Your task to perform on an android device: open app "WhatsApp Messenger" (install if not already installed) Image 0: 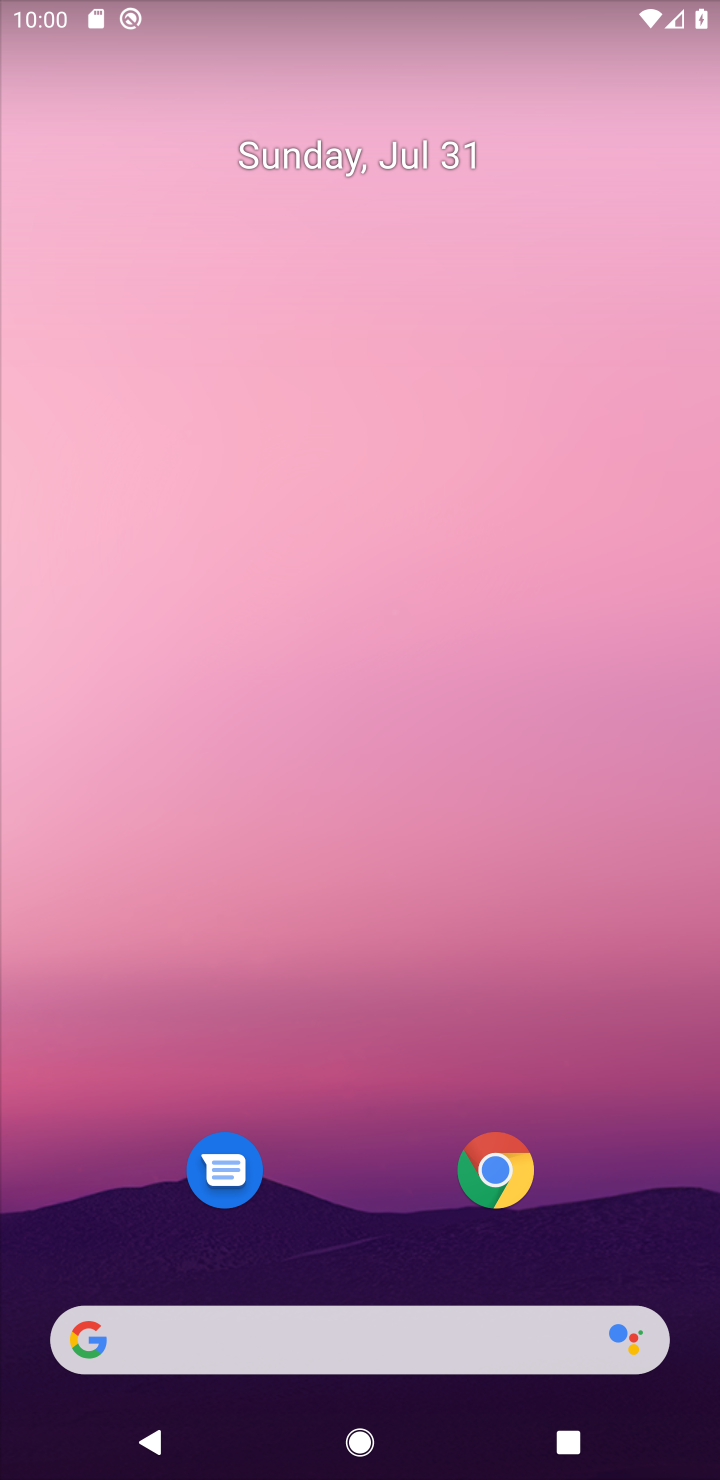
Step 0: drag from (656, 1244) to (273, 111)
Your task to perform on an android device: open app "WhatsApp Messenger" (install if not already installed) Image 1: 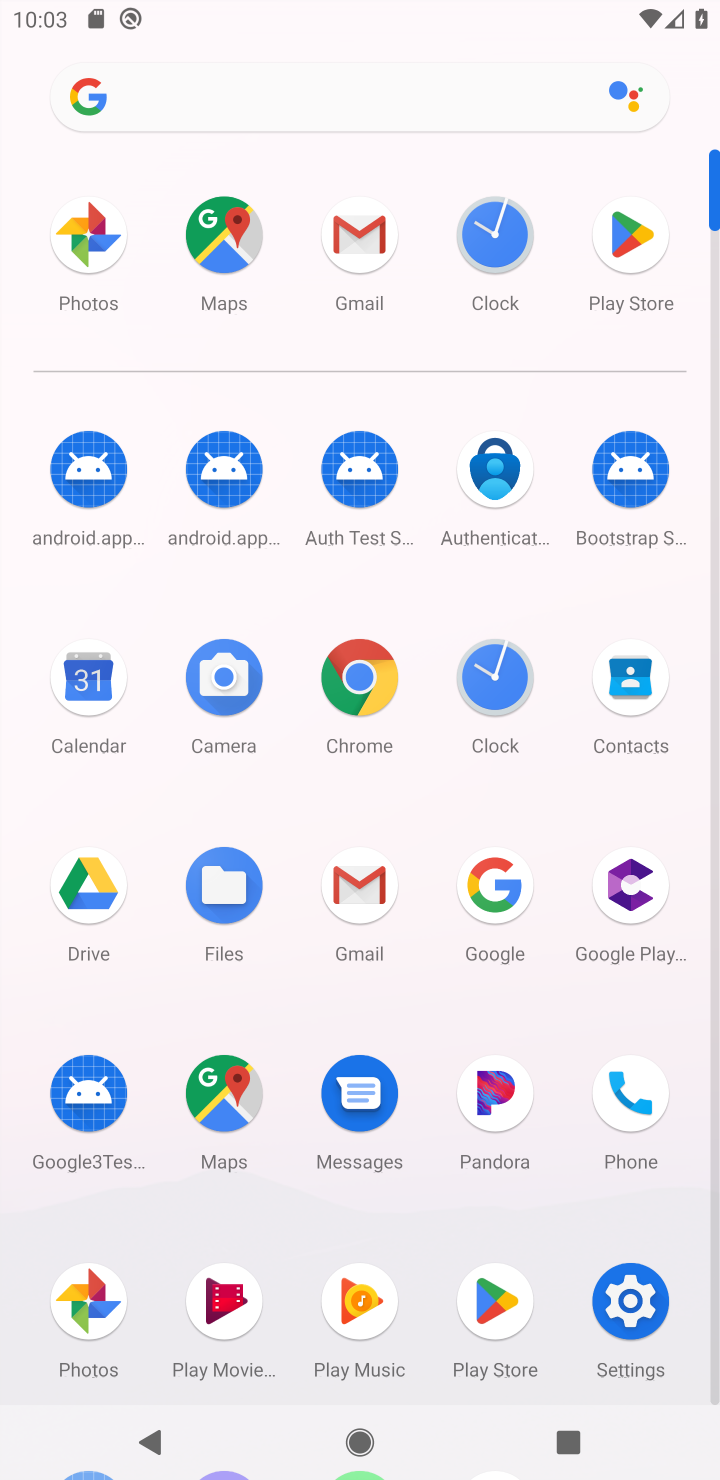
Step 1: click (628, 230)
Your task to perform on an android device: open app "WhatsApp Messenger" (install if not already installed) Image 2: 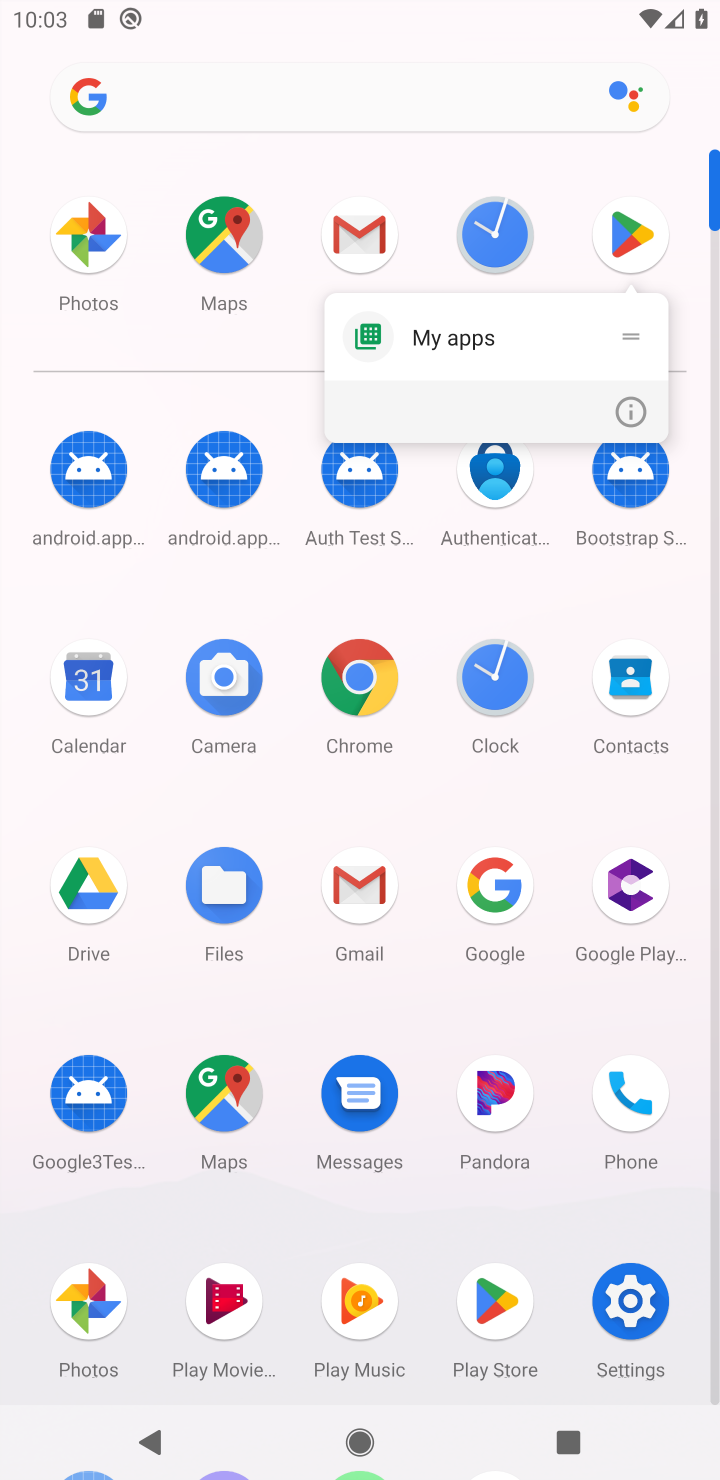
Step 2: click (596, 215)
Your task to perform on an android device: open app "WhatsApp Messenger" (install if not already installed) Image 3: 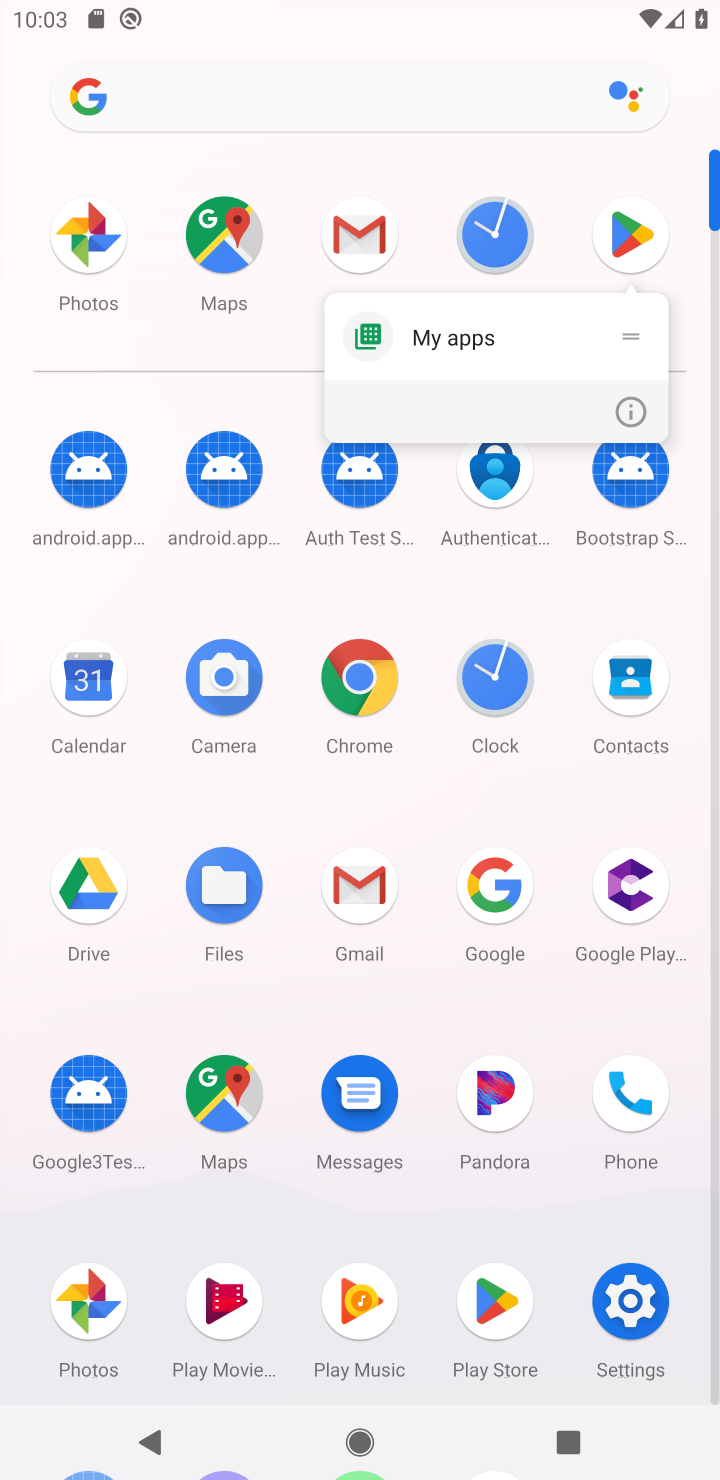
Step 3: click (615, 241)
Your task to perform on an android device: open app "WhatsApp Messenger" (install if not already installed) Image 4: 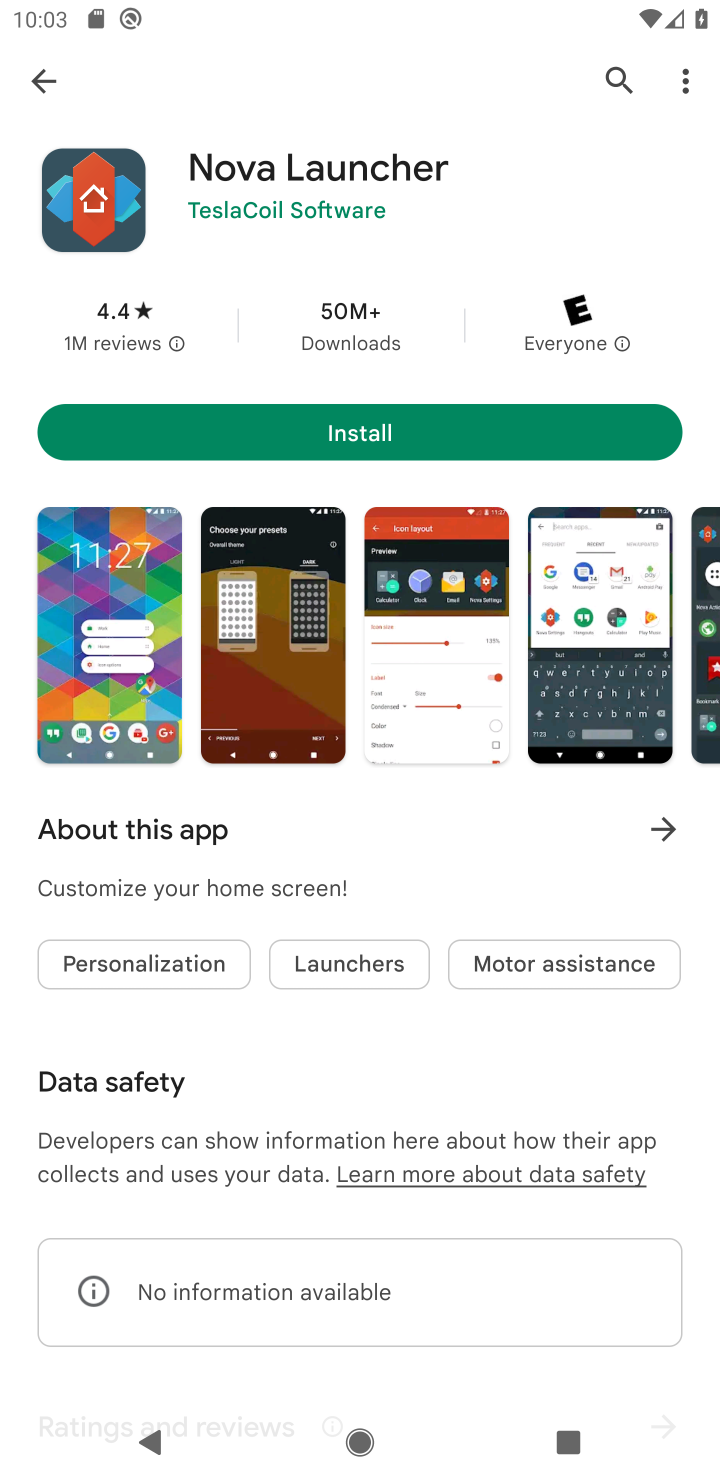
Step 4: press back button
Your task to perform on an android device: open app "WhatsApp Messenger" (install if not already installed) Image 5: 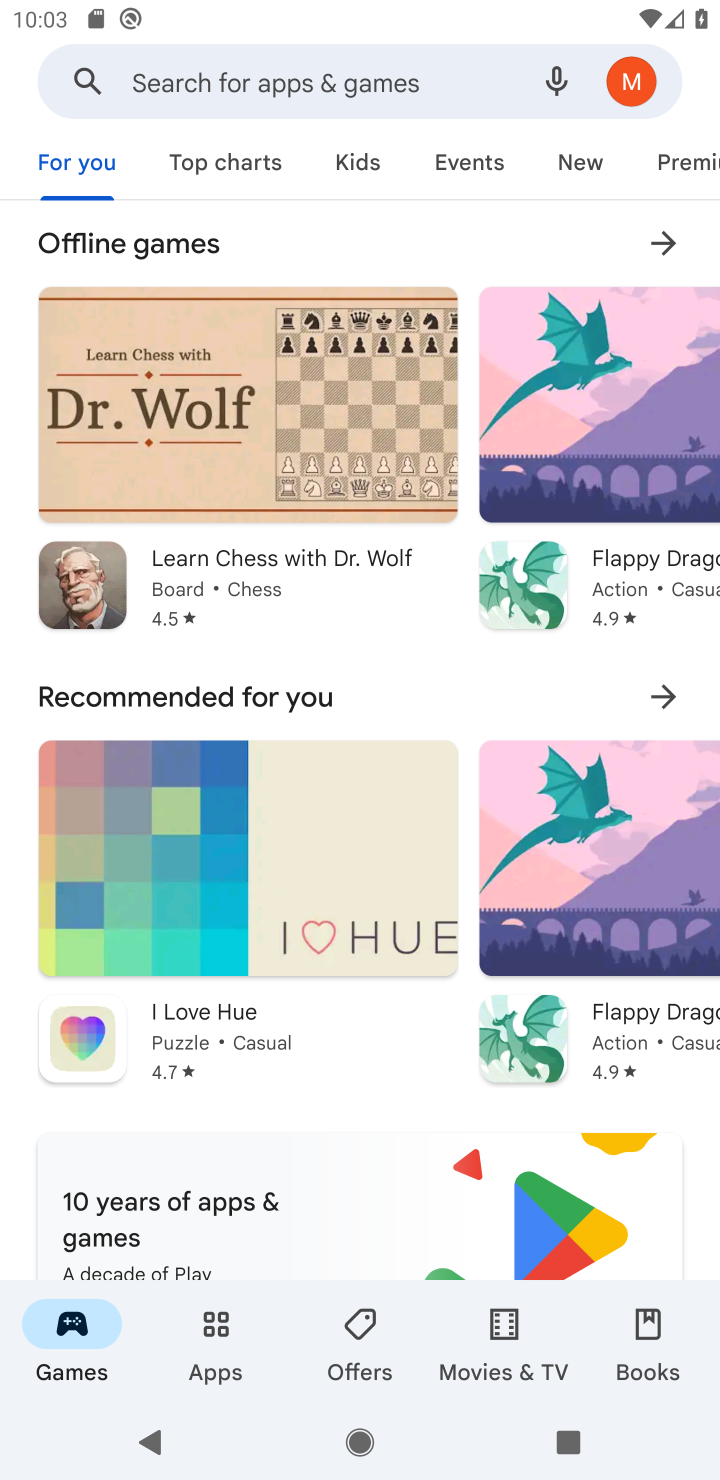
Step 5: click (192, 77)
Your task to perform on an android device: open app "WhatsApp Messenger" (install if not already installed) Image 6: 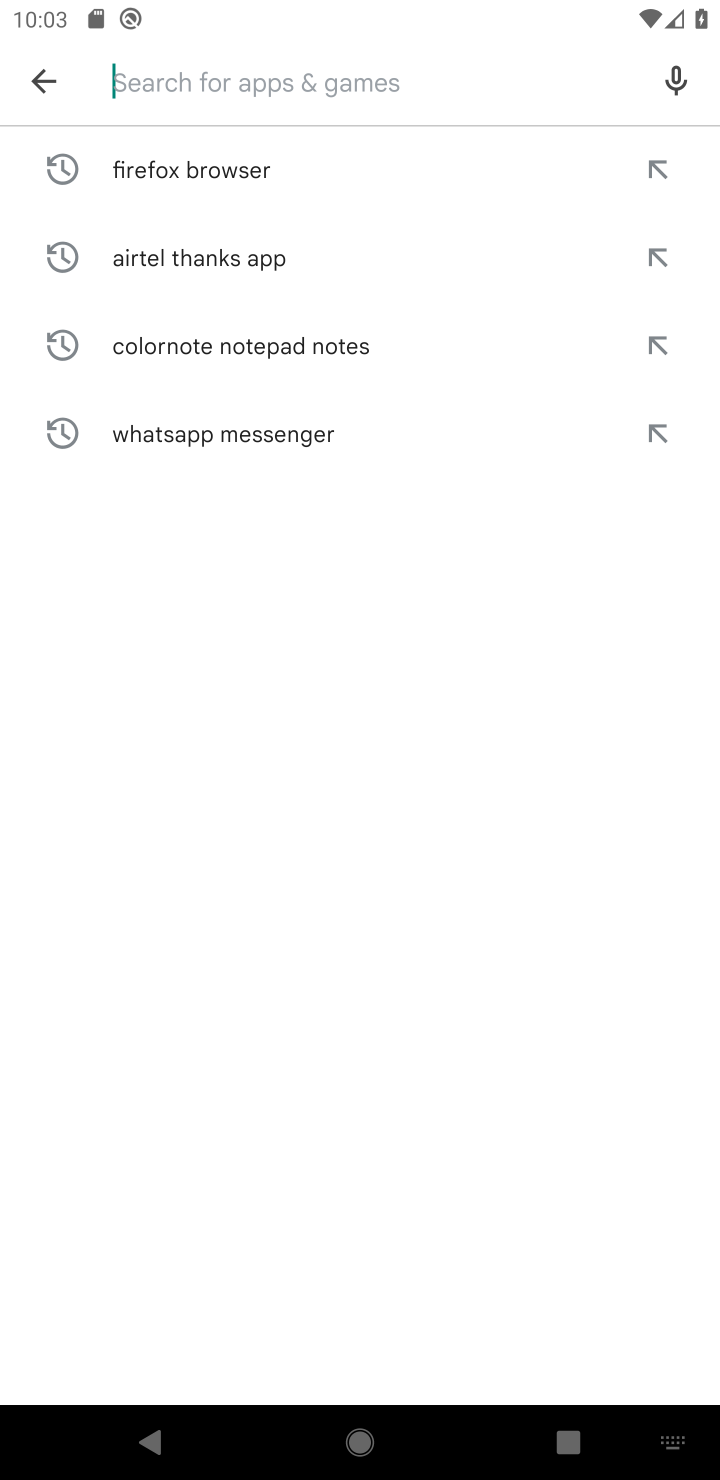
Step 6: type "WhatsApp Messenger"
Your task to perform on an android device: open app "WhatsApp Messenger" (install if not already installed) Image 7: 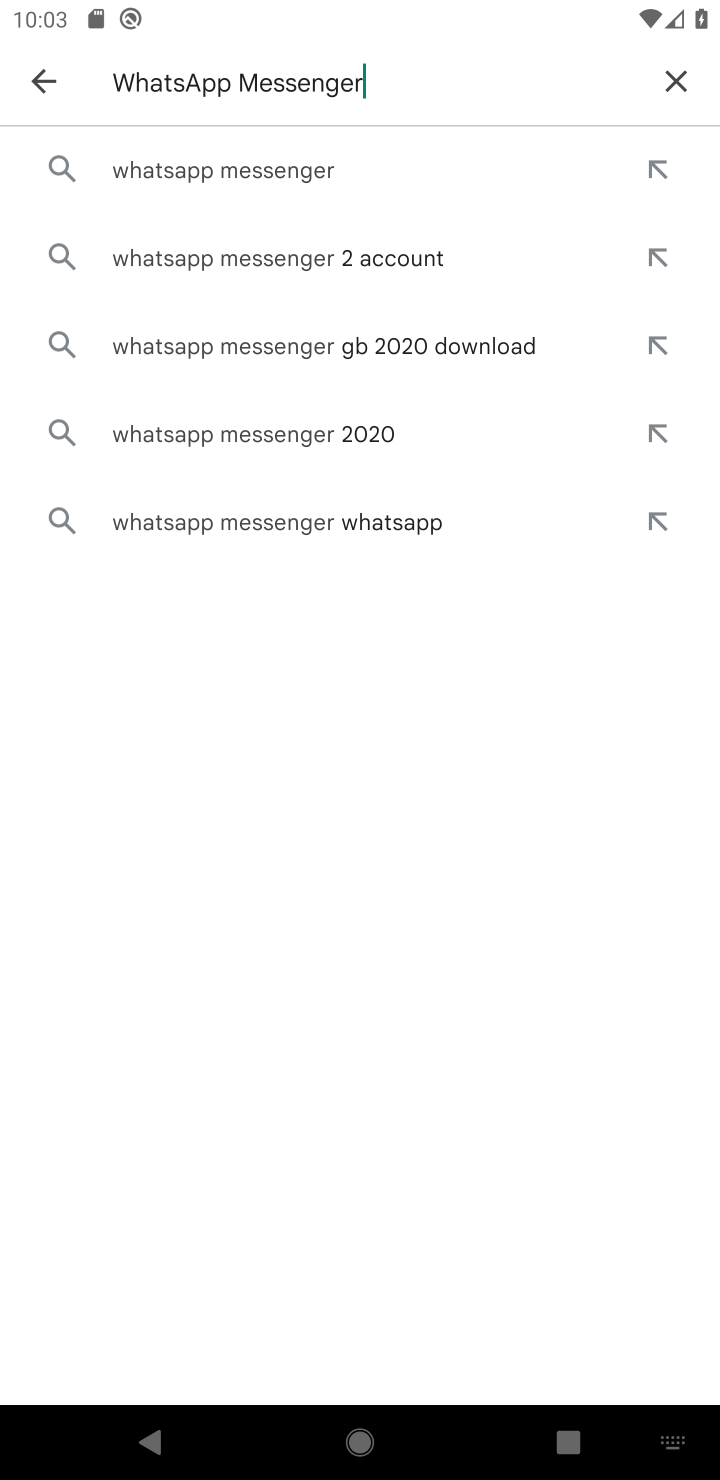
Step 7: click (222, 185)
Your task to perform on an android device: open app "WhatsApp Messenger" (install if not already installed) Image 8: 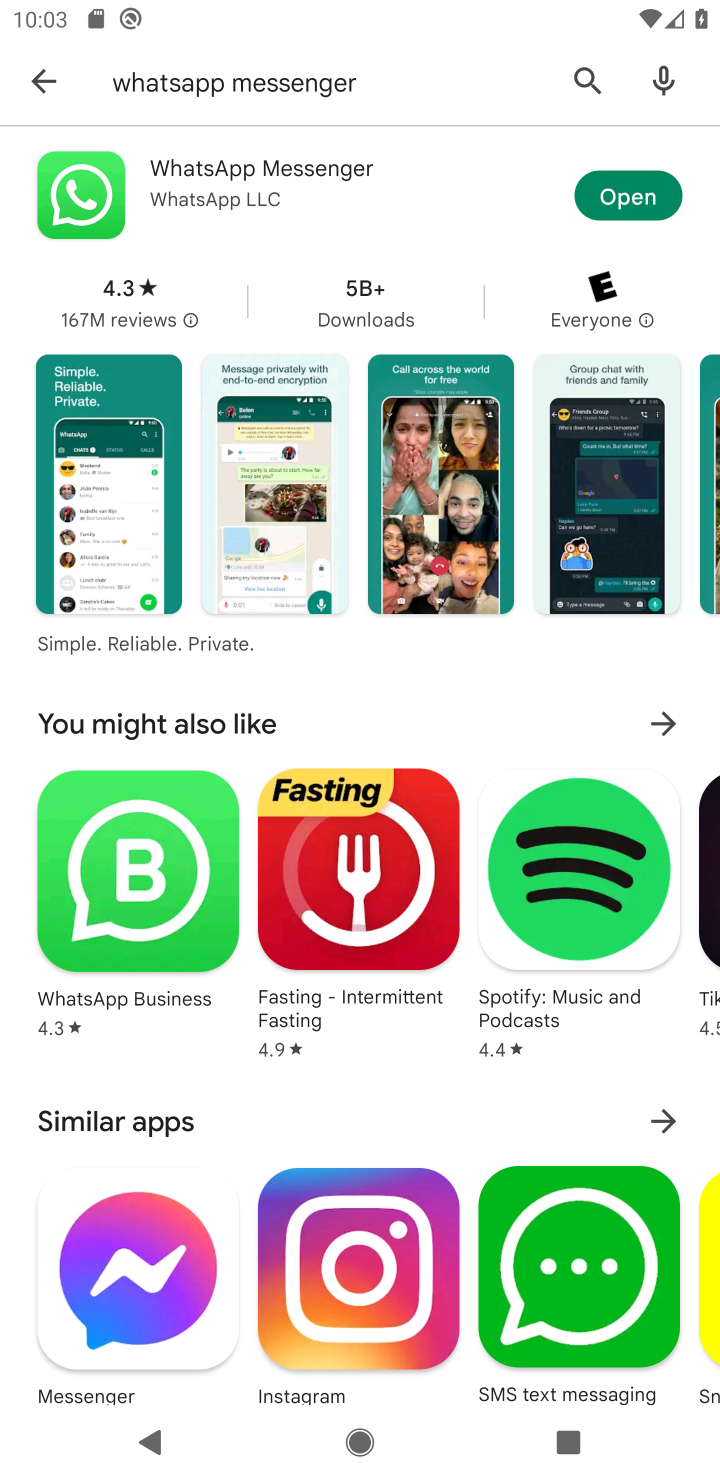
Step 8: task complete